Your task to perform on an android device: Open my contact list Image 0: 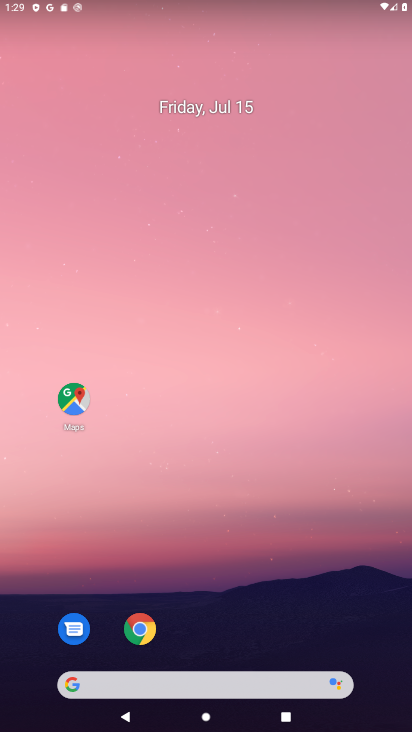
Step 0: drag from (210, 641) to (233, 140)
Your task to perform on an android device: Open my contact list Image 1: 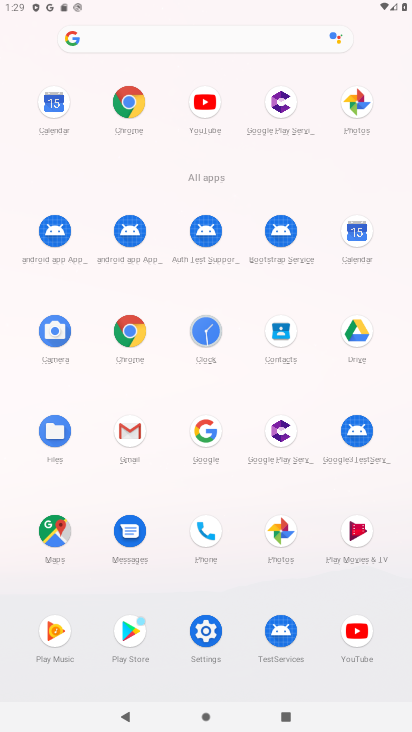
Step 1: click (284, 357)
Your task to perform on an android device: Open my contact list Image 2: 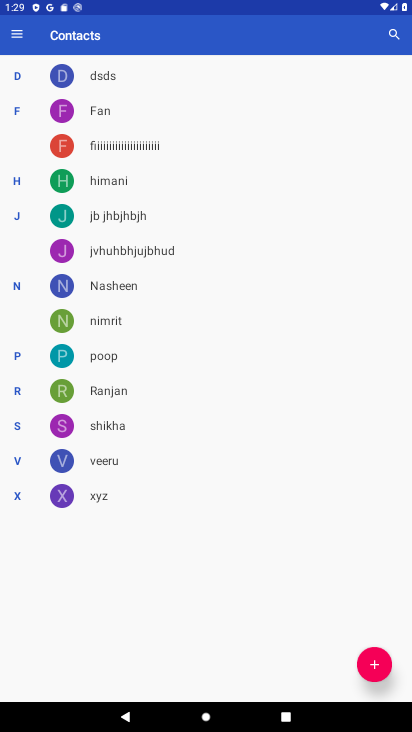
Step 2: task complete